Your task to perform on an android device: toggle notification dots Image 0: 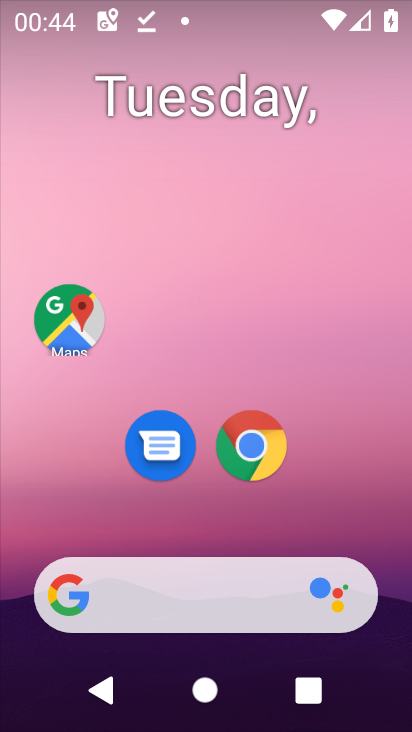
Step 0: drag from (329, 508) to (232, 15)
Your task to perform on an android device: toggle notification dots Image 1: 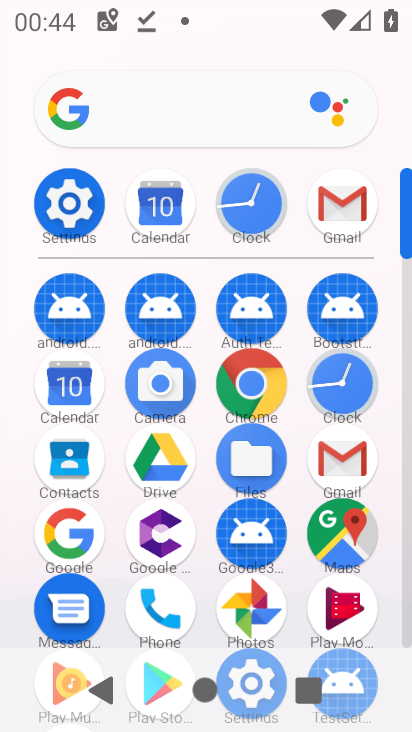
Step 1: click (68, 206)
Your task to perform on an android device: toggle notification dots Image 2: 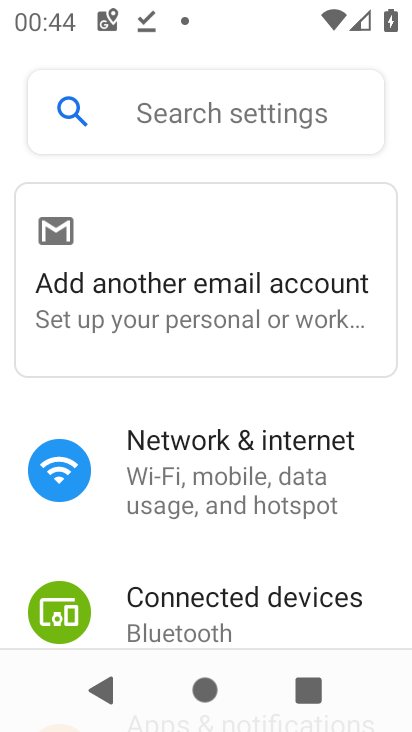
Step 2: drag from (241, 528) to (163, 207)
Your task to perform on an android device: toggle notification dots Image 3: 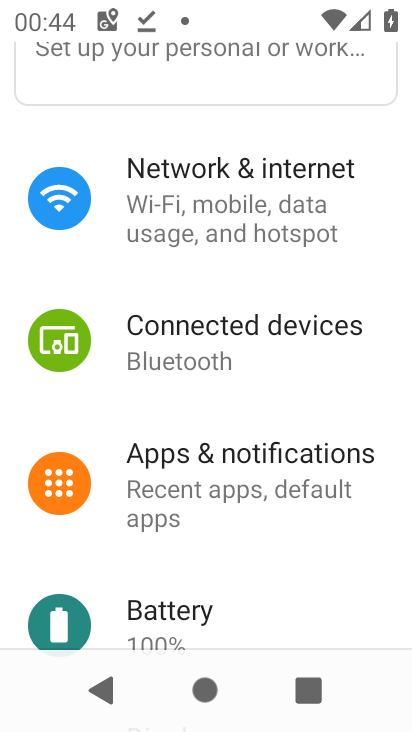
Step 3: click (185, 475)
Your task to perform on an android device: toggle notification dots Image 4: 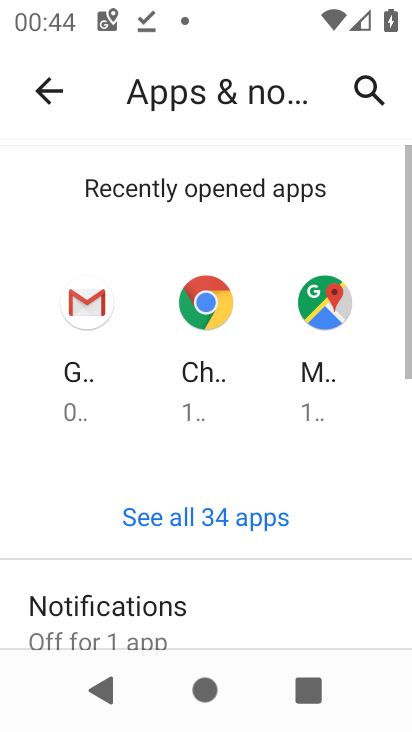
Step 4: drag from (229, 486) to (167, 166)
Your task to perform on an android device: toggle notification dots Image 5: 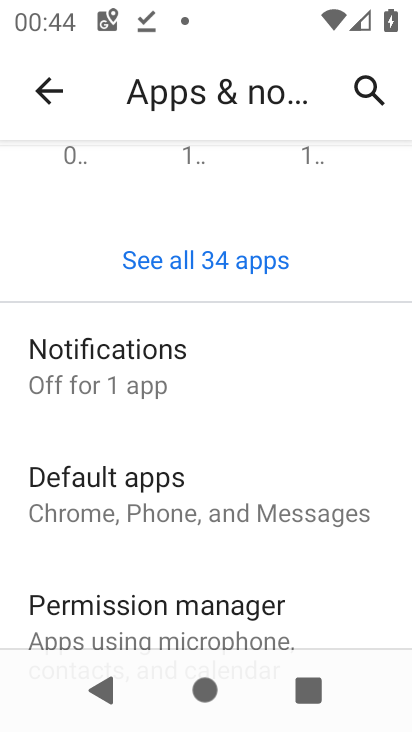
Step 5: click (129, 345)
Your task to perform on an android device: toggle notification dots Image 6: 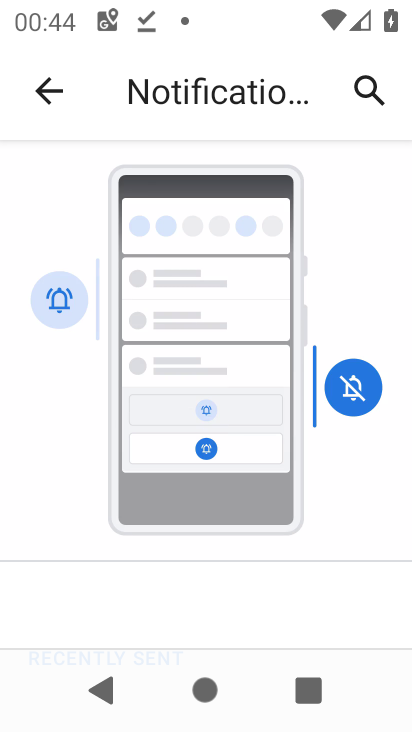
Step 6: drag from (332, 502) to (273, 164)
Your task to perform on an android device: toggle notification dots Image 7: 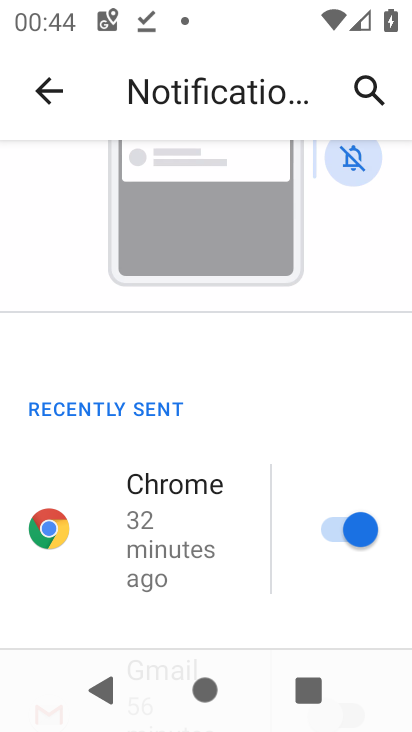
Step 7: drag from (287, 460) to (243, 175)
Your task to perform on an android device: toggle notification dots Image 8: 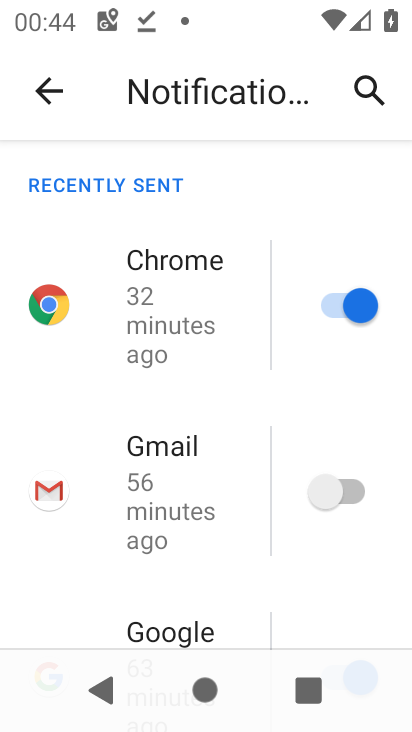
Step 8: drag from (232, 497) to (183, 134)
Your task to perform on an android device: toggle notification dots Image 9: 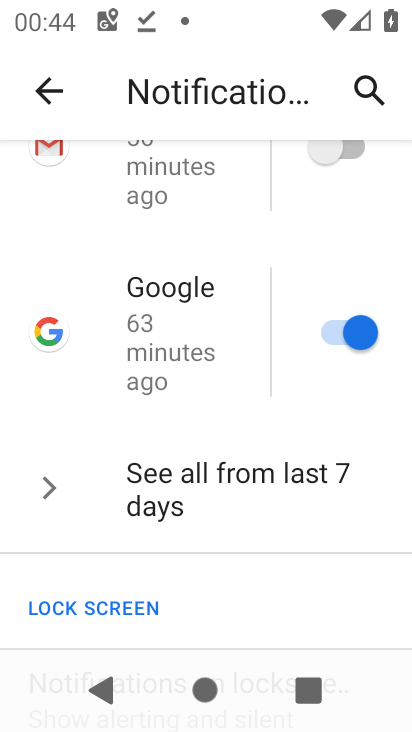
Step 9: drag from (199, 524) to (106, 123)
Your task to perform on an android device: toggle notification dots Image 10: 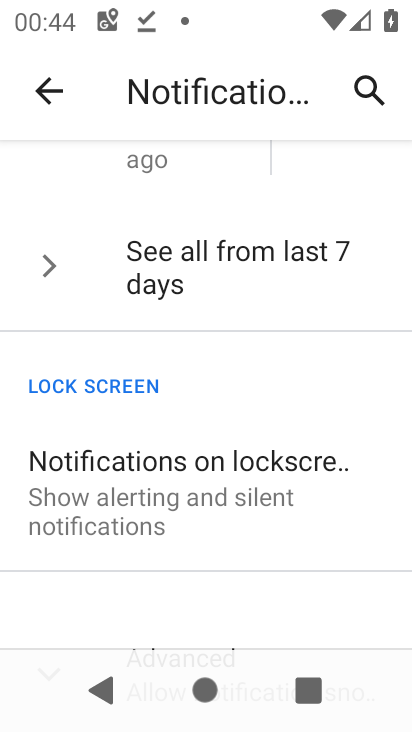
Step 10: drag from (188, 516) to (149, 150)
Your task to perform on an android device: toggle notification dots Image 11: 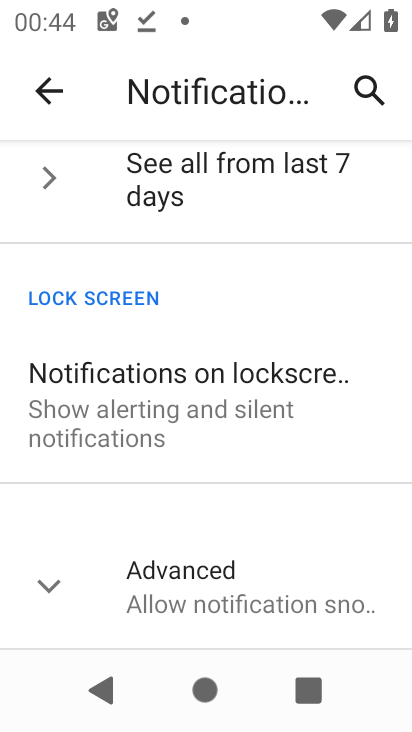
Step 11: click (48, 591)
Your task to perform on an android device: toggle notification dots Image 12: 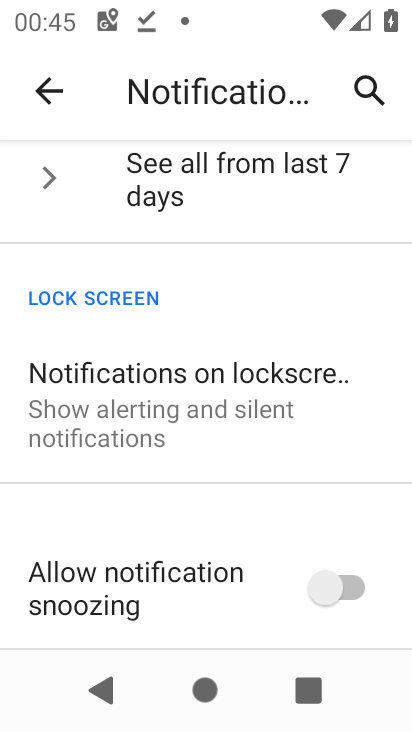
Step 12: drag from (169, 592) to (162, 200)
Your task to perform on an android device: toggle notification dots Image 13: 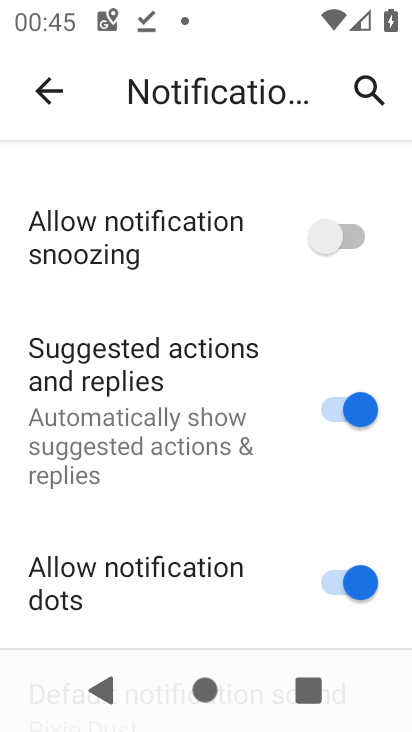
Step 13: click (349, 574)
Your task to perform on an android device: toggle notification dots Image 14: 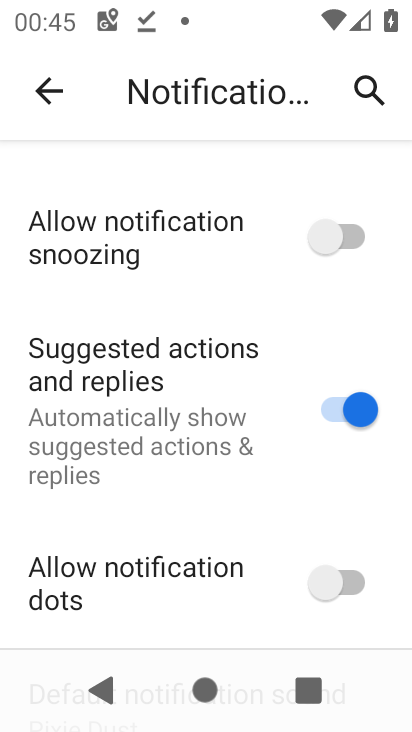
Step 14: task complete